Your task to perform on an android device: Open Google Chrome and open the bookmarks view Image 0: 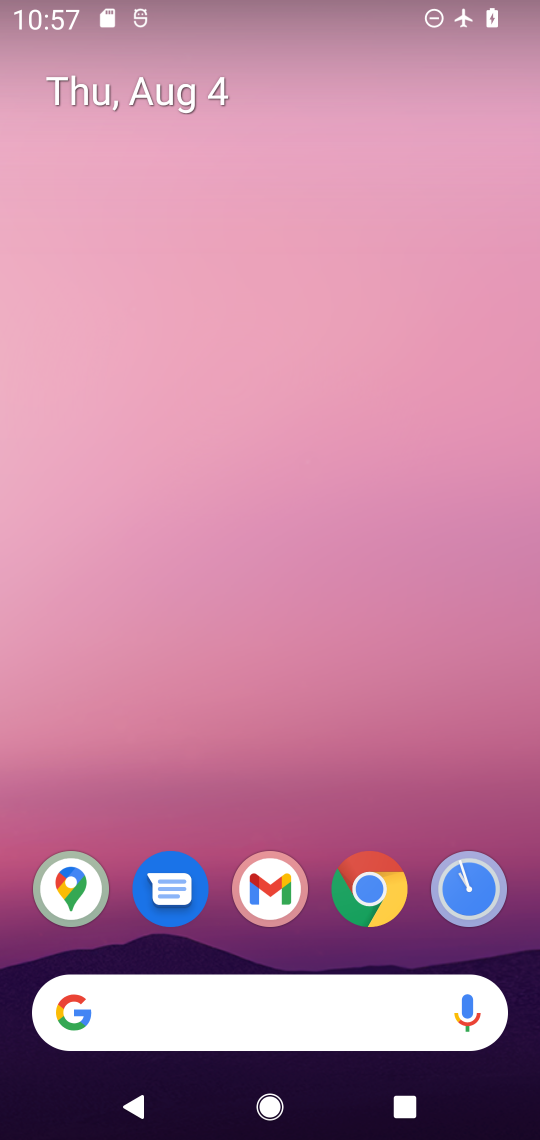
Step 0: press home button
Your task to perform on an android device: Open Google Chrome and open the bookmarks view Image 1: 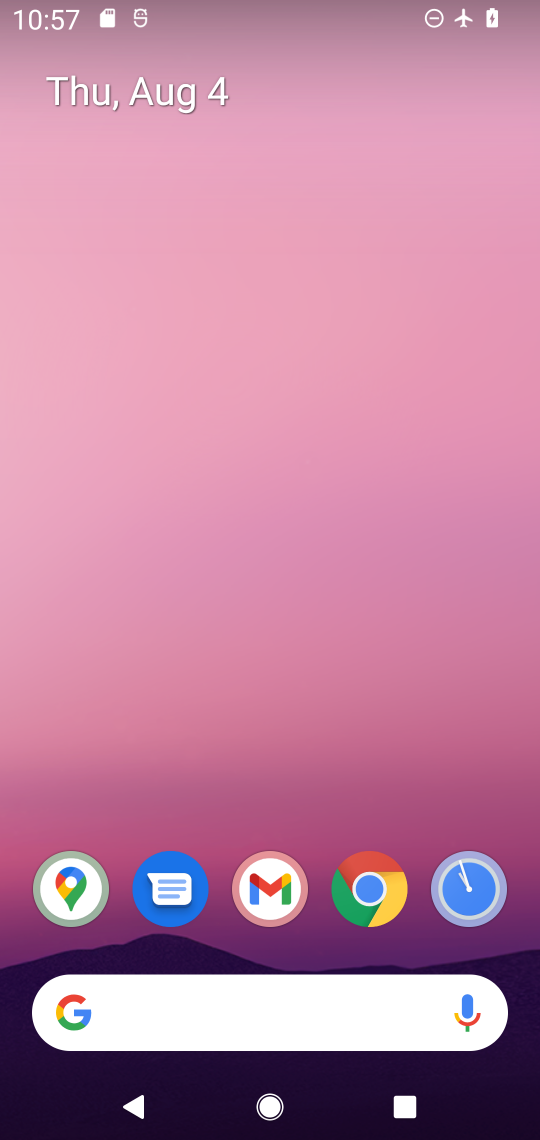
Step 1: drag from (422, 811) to (351, 196)
Your task to perform on an android device: Open Google Chrome and open the bookmarks view Image 2: 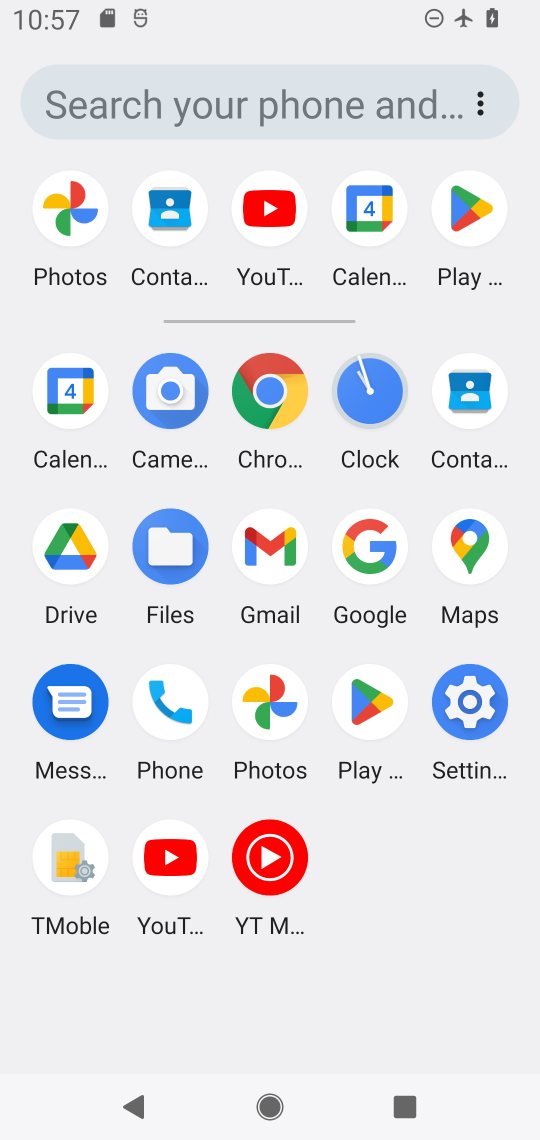
Step 2: click (266, 405)
Your task to perform on an android device: Open Google Chrome and open the bookmarks view Image 3: 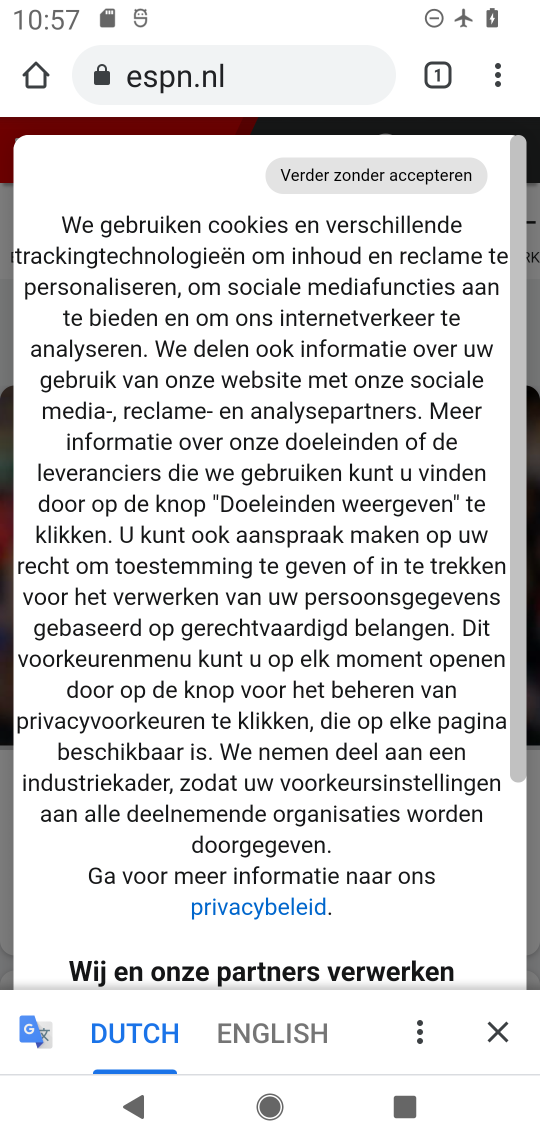
Step 3: click (498, 73)
Your task to perform on an android device: Open Google Chrome and open the bookmarks view Image 4: 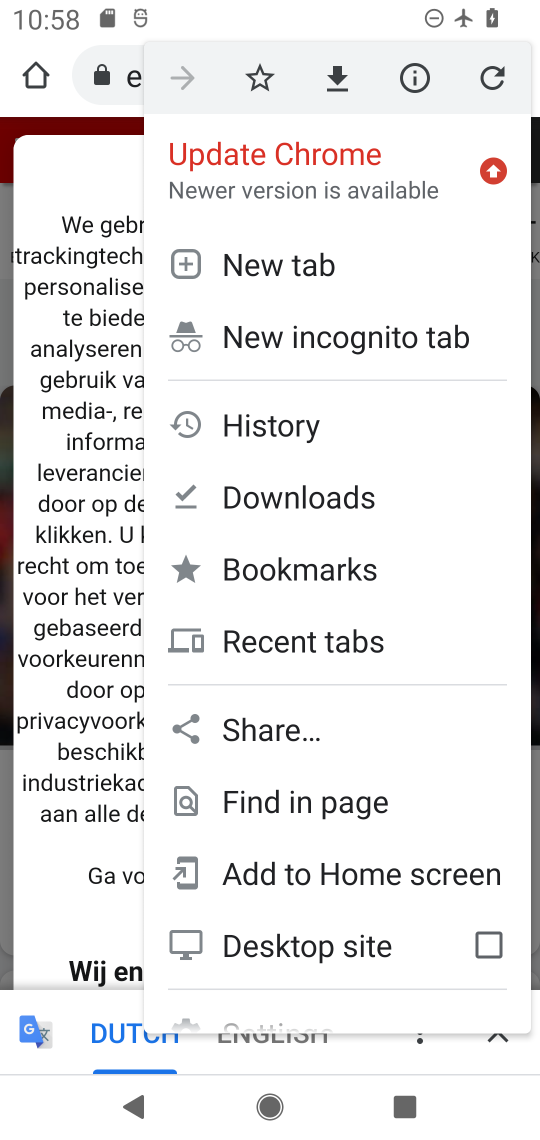
Step 4: click (329, 569)
Your task to perform on an android device: Open Google Chrome and open the bookmarks view Image 5: 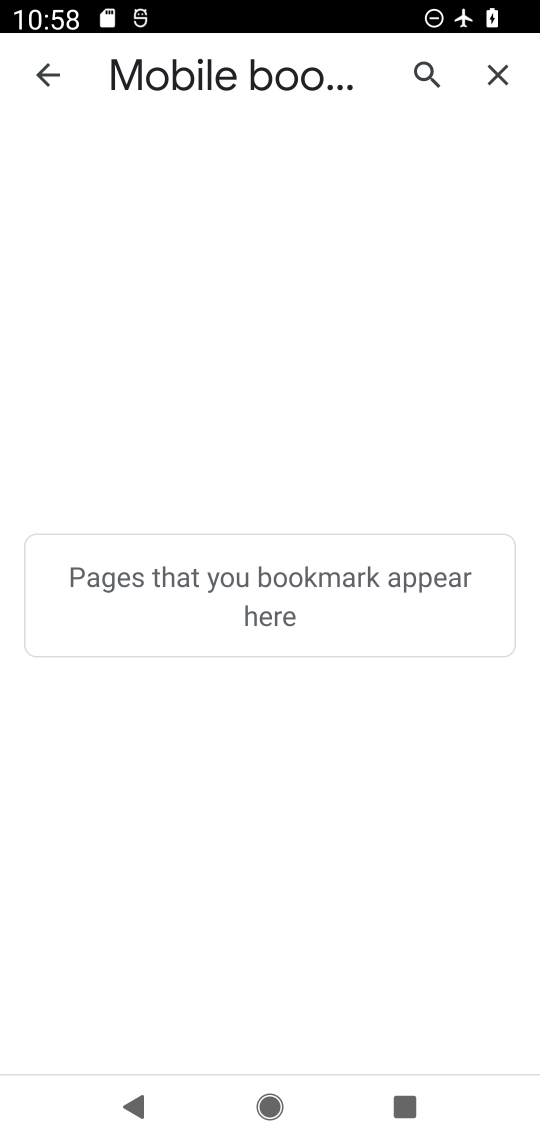
Step 5: task complete